Your task to perform on an android device: Open the web browser Image 0: 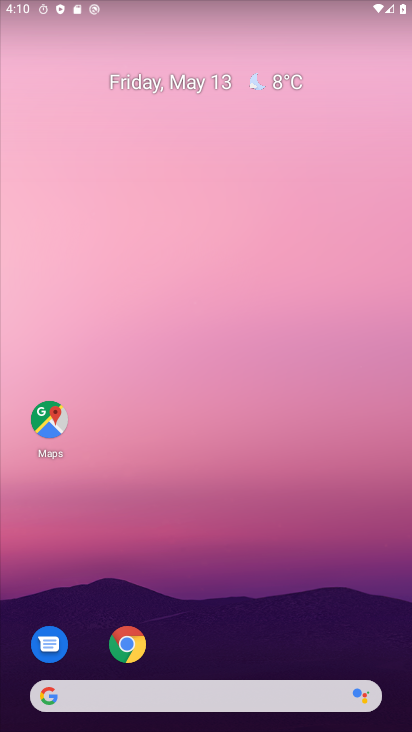
Step 0: click (118, 650)
Your task to perform on an android device: Open the web browser Image 1: 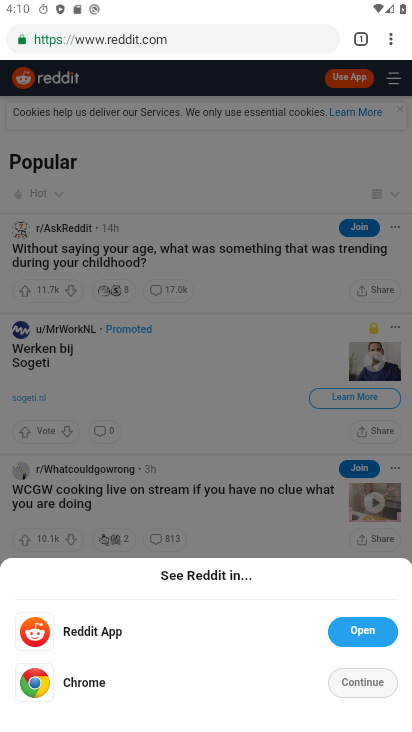
Step 1: task complete